Your task to perform on an android device: Set the phone to "Do not disturb". Image 0: 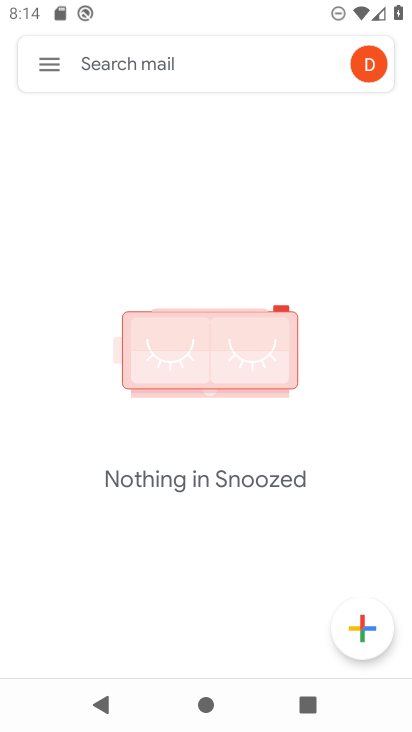
Step 0: press home button
Your task to perform on an android device: Set the phone to "Do not disturb". Image 1: 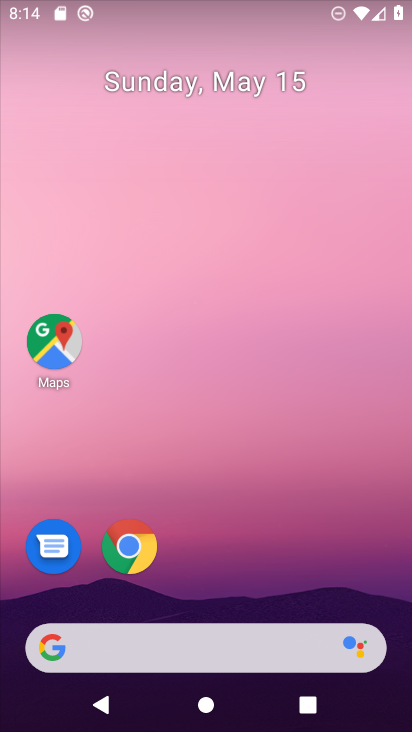
Step 1: drag from (250, 484) to (207, 85)
Your task to perform on an android device: Set the phone to "Do not disturb". Image 2: 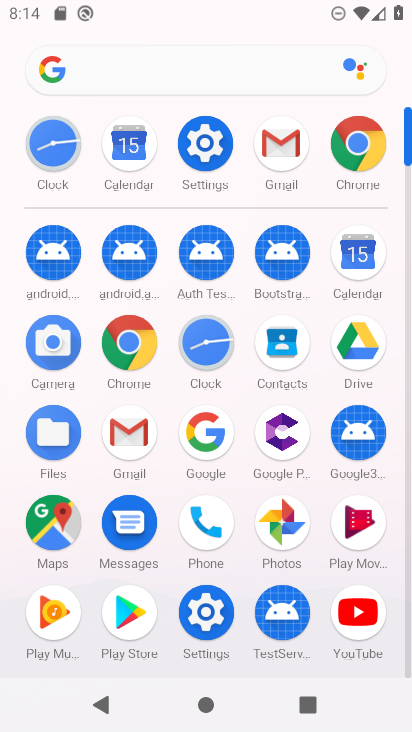
Step 2: click (195, 137)
Your task to perform on an android device: Set the phone to "Do not disturb". Image 3: 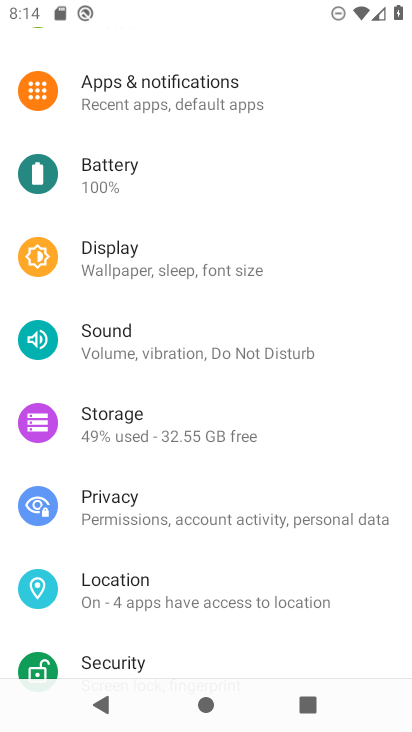
Step 3: click (206, 349)
Your task to perform on an android device: Set the phone to "Do not disturb". Image 4: 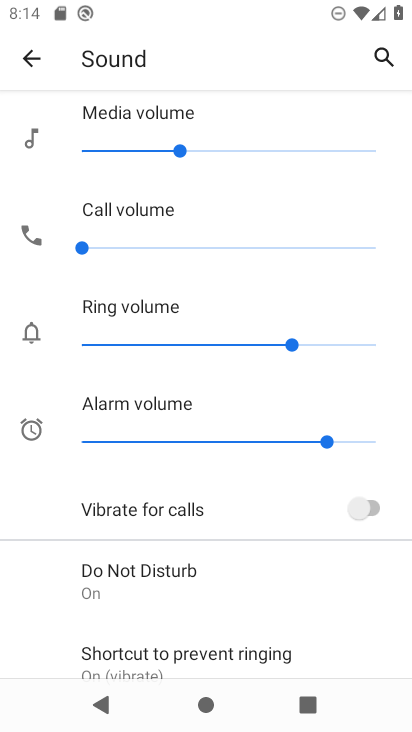
Step 4: task complete